Your task to perform on an android device: see creations saved in the google photos Image 0: 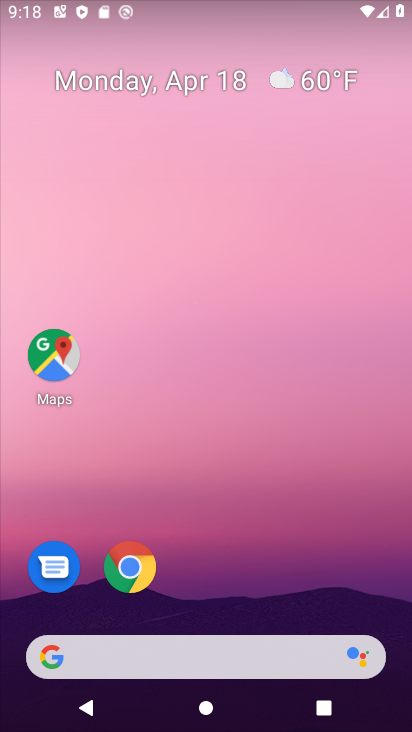
Step 0: drag from (282, 130) to (366, 37)
Your task to perform on an android device: see creations saved in the google photos Image 1: 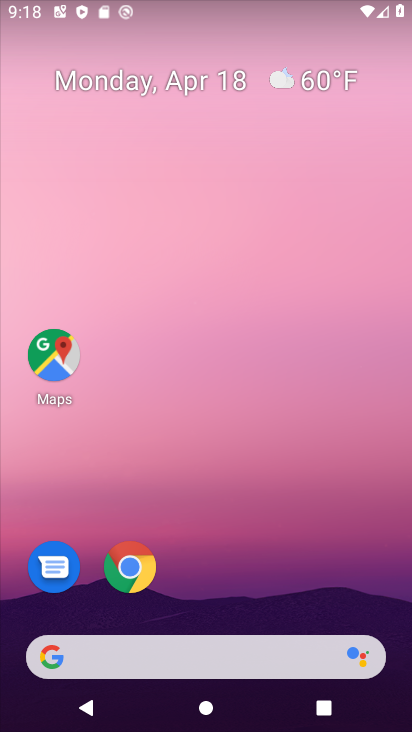
Step 1: drag from (211, 624) to (250, 46)
Your task to perform on an android device: see creations saved in the google photos Image 2: 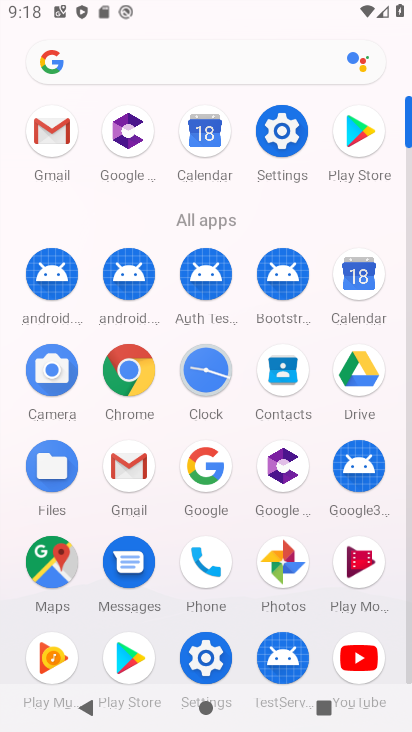
Step 2: click (277, 555)
Your task to perform on an android device: see creations saved in the google photos Image 3: 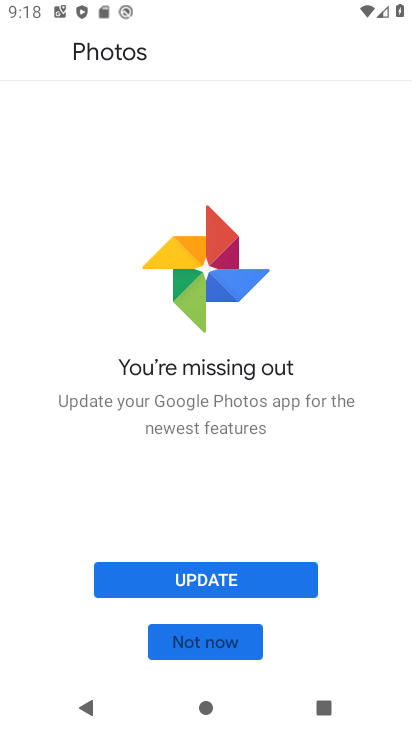
Step 3: click (218, 582)
Your task to perform on an android device: see creations saved in the google photos Image 4: 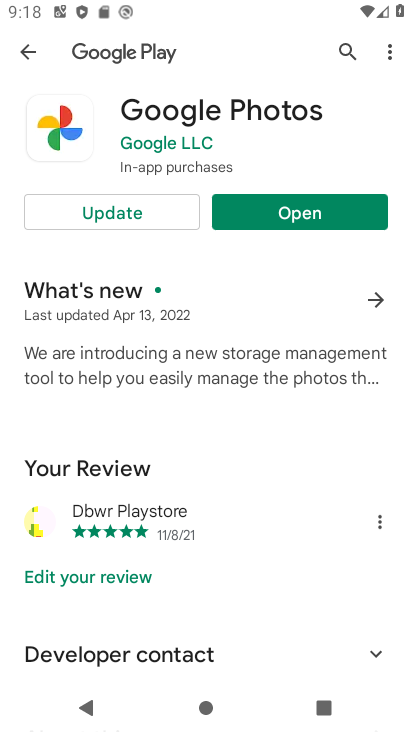
Step 4: click (147, 219)
Your task to perform on an android device: see creations saved in the google photos Image 5: 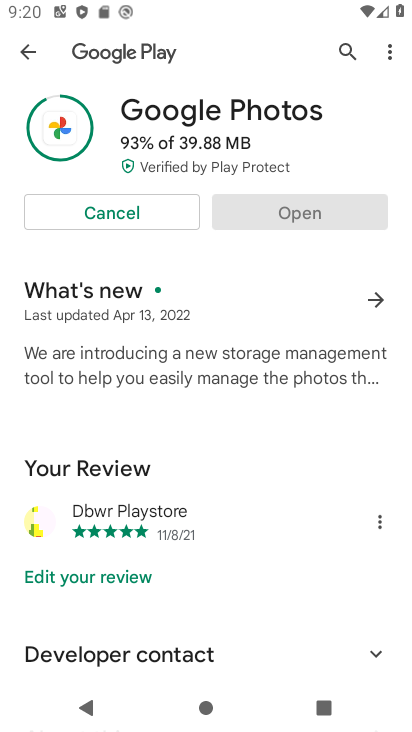
Step 5: task complete